Your task to perform on an android device: Open Youtube and go to "Your channel" Image 0: 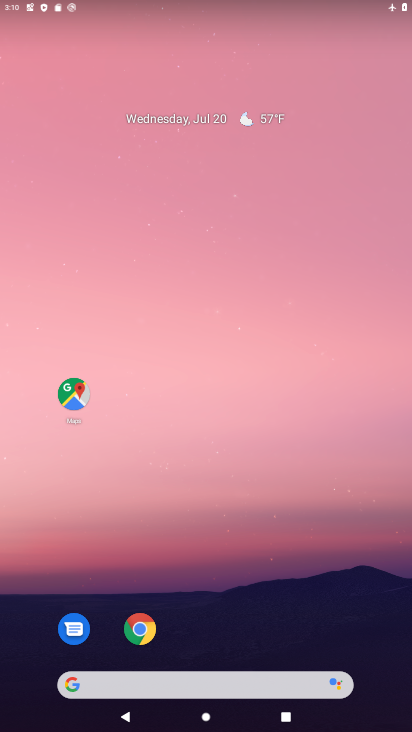
Step 0: drag from (176, 636) to (157, 154)
Your task to perform on an android device: Open Youtube and go to "Your channel" Image 1: 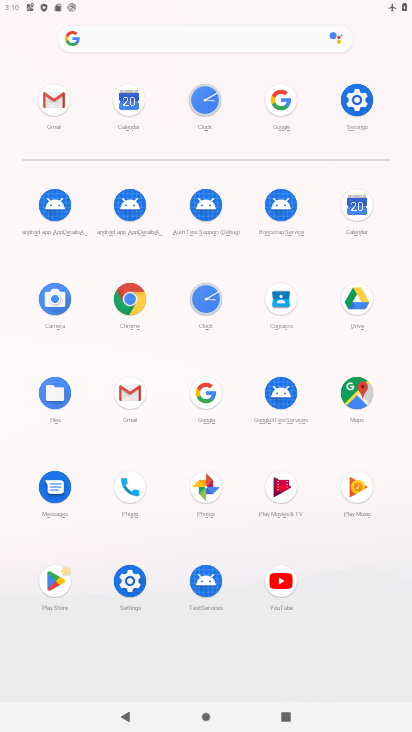
Step 1: click (277, 596)
Your task to perform on an android device: Open Youtube and go to "Your channel" Image 2: 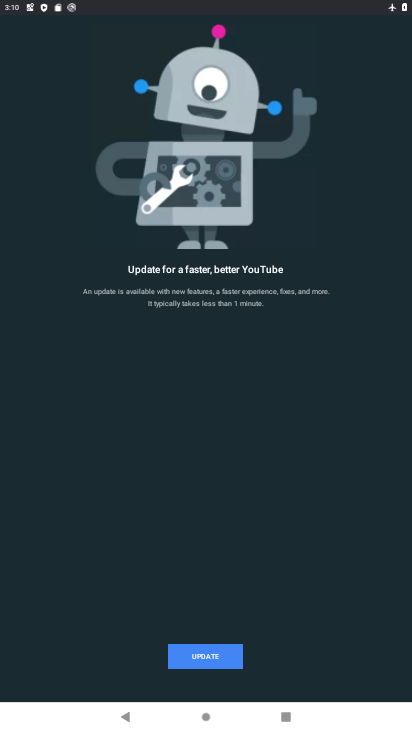
Step 2: click (213, 646)
Your task to perform on an android device: Open Youtube and go to "Your channel" Image 3: 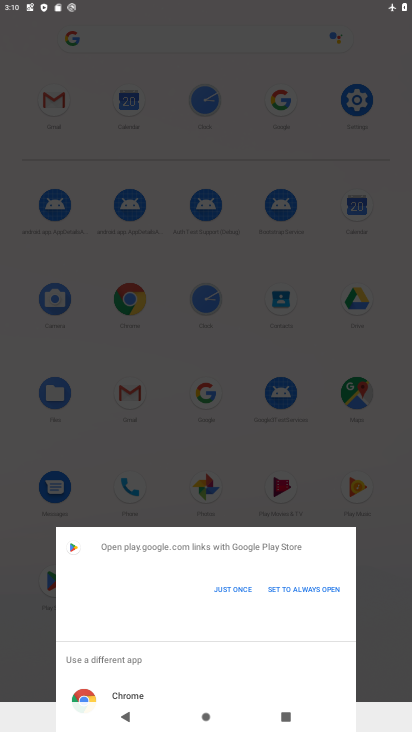
Step 3: click (234, 590)
Your task to perform on an android device: Open Youtube and go to "Your channel" Image 4: 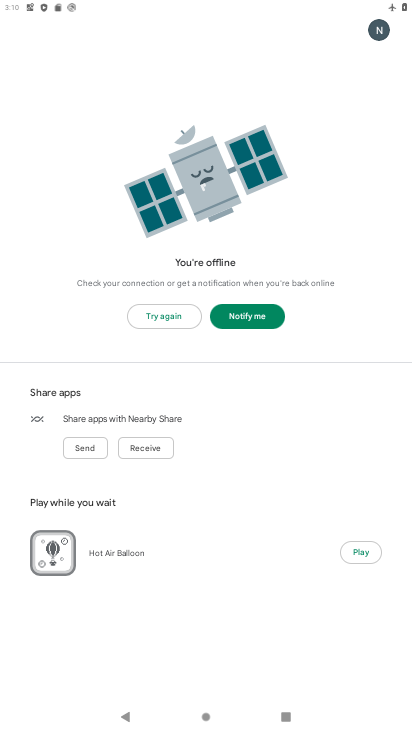
Step 4: task complete